Your task to perform on an android device: What is the news today? Image 0: 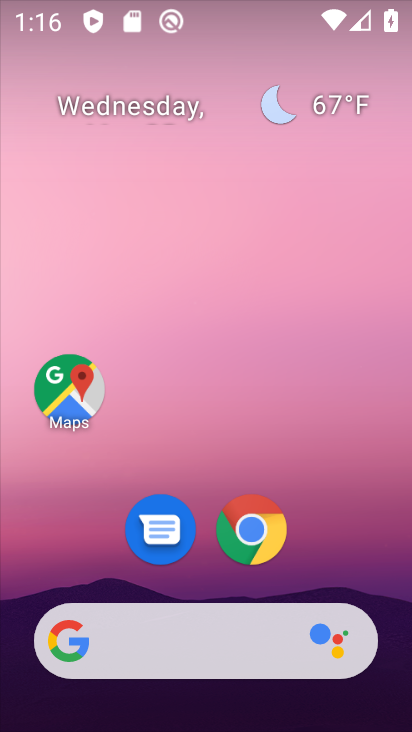
Step 0: drag from (351, 542) to (318, 167)
Your task to perform on an android device: What is the news today? Image 1: 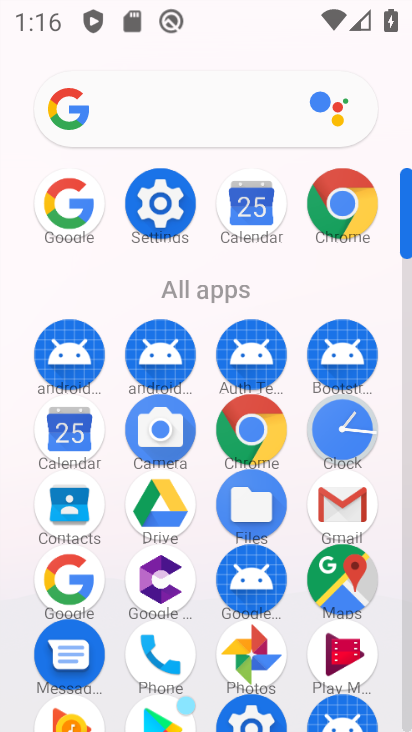
Step 1: click (63, 202)
Your task to perform on an android device: What is the news today? Image 2: 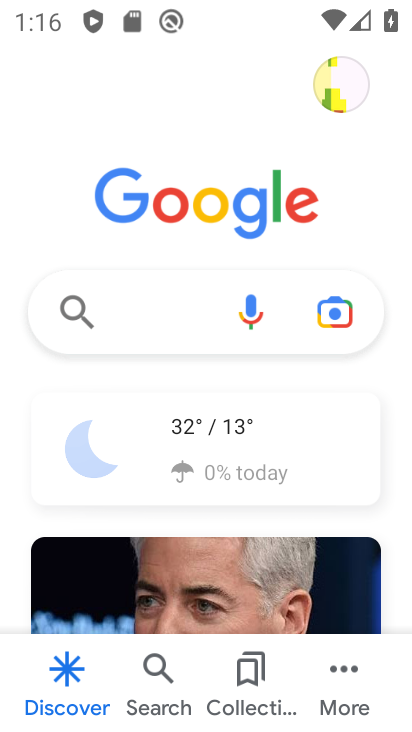
Step 2: click (150, 306)
Your task to perform on an android device: What is the news today? Image 3: 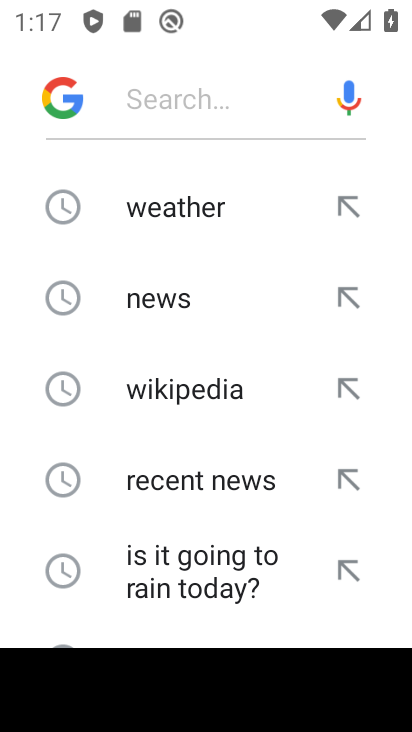
Step 3: type "news today"
Your task to perform on an android device: What is the news today? Image 4: 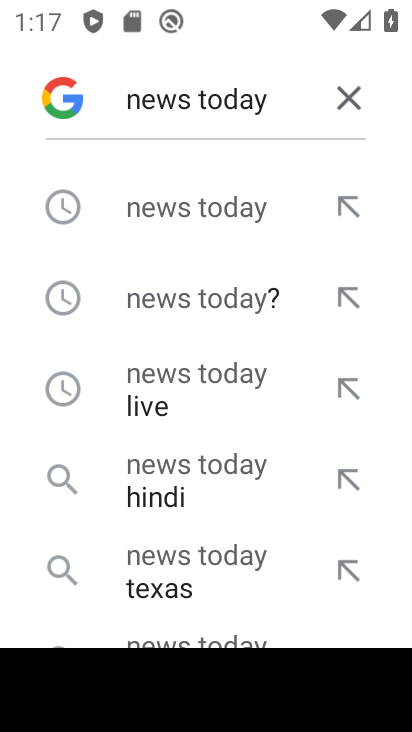
Step 4: click (175, 203)
Your task to perform on an android device: What is the news today? Image 5: 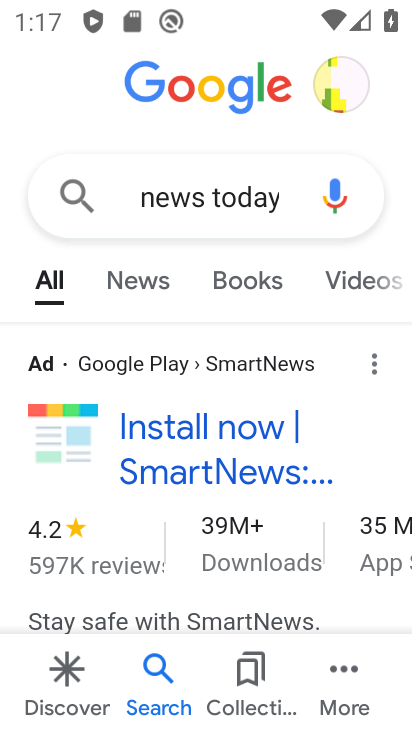
Step 5: drag from (282, 509) to (302, 283)
Your task to perform on an android device: What is the news today? Image 6: 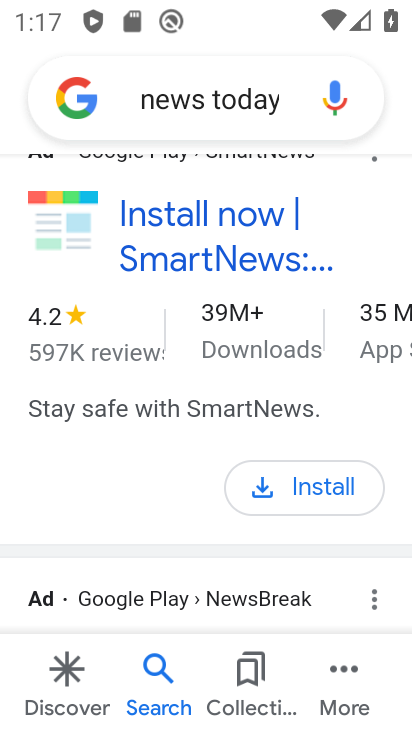
Step 6: drag from (160, 554) to (191, 289)
Your task to perform on an android device: What is the news today? Image 7: 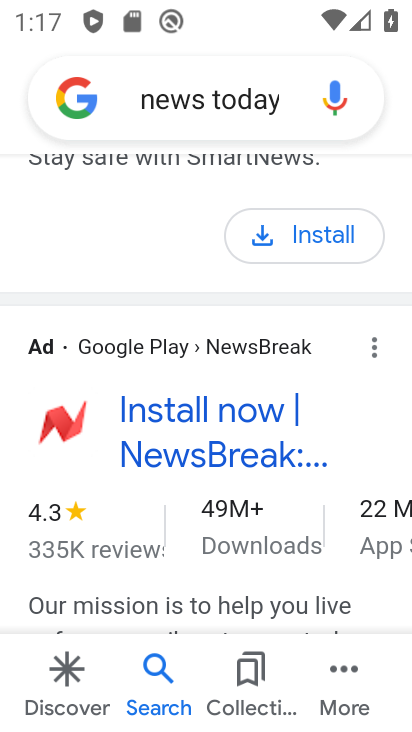
Step 7: drag from (127, 512) to (182, 253)
Your task to perform on an android device: What is the news today? Image 8: 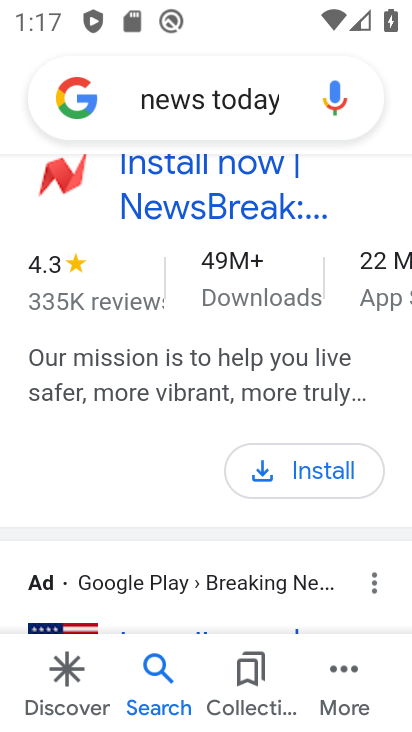
Step 8: drag from (158, 516) to (182, 272)
Your task to perform on an android device: What is the news today? Image 9: 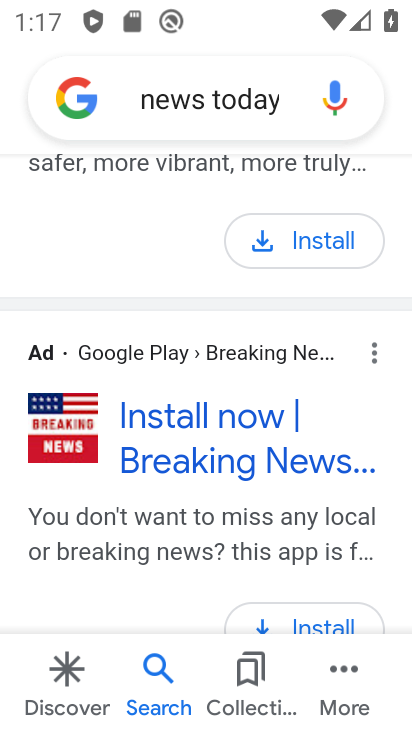
Step 9: drag from (140, 539) to (200, 285)
Your task to perform on an android device: What is the news today? Image 10: 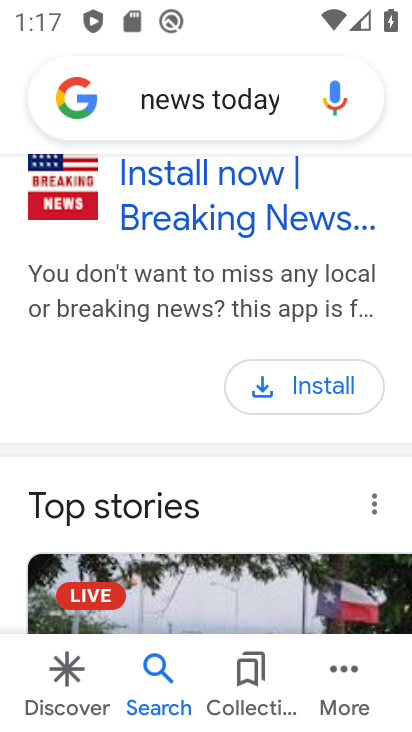
Step 10: drag from (161, 520) to (219, 243)
Your task to perform on an android device: What is the news today? Image 11: 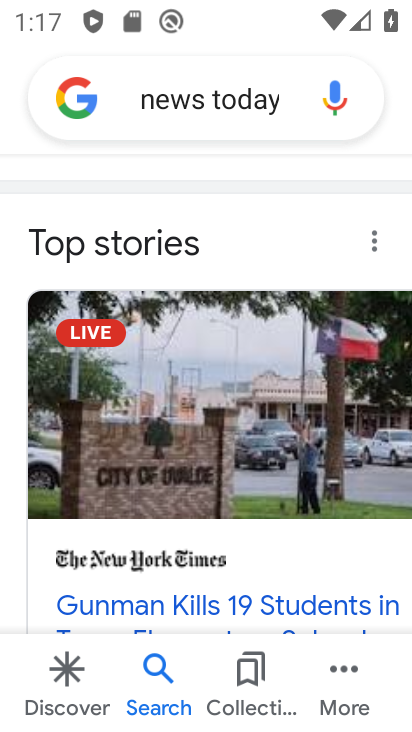
Step 11: click (199, 424)
Your task to perform on an android device: What is the news today? Image 12: 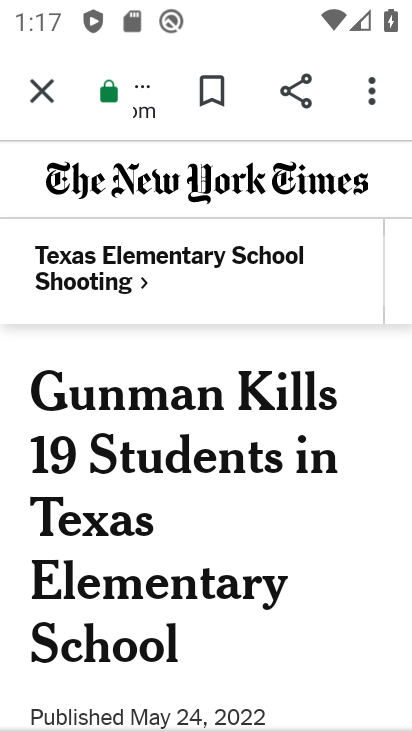
Step 12: task complete